Your task to perform on an android device: Go to settings Image 0: 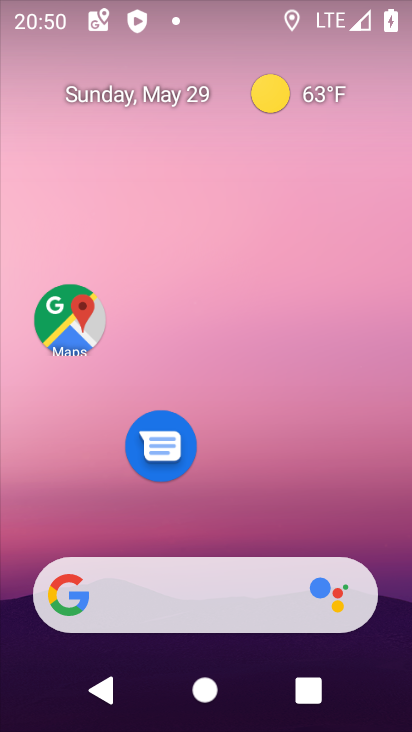
Step 0: drag from (242, 497) to (244, 177)
Your task to perform on an android device: Go to settings Image 1: 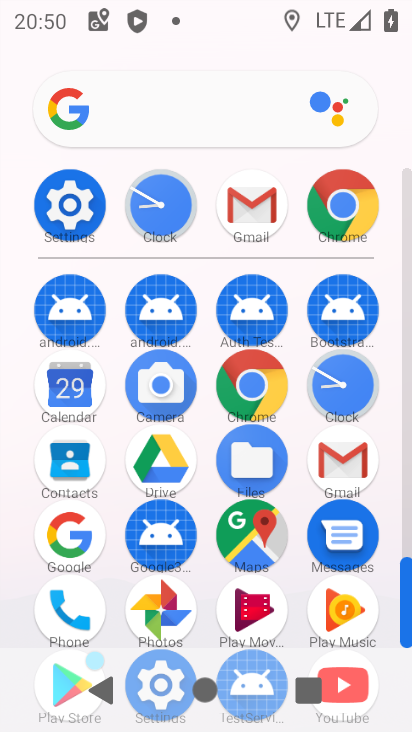
Step 1: click (68, 218)
Your task to perform on an android device: Go to settings Image 2: 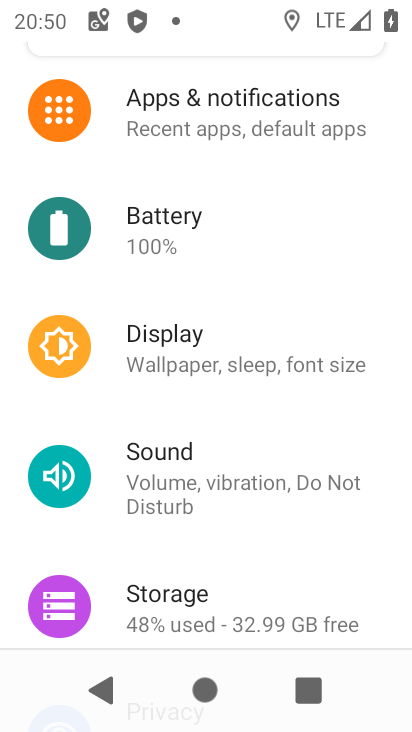
Step 2: task complete